Your task to perform on an android device: open app "LiveIn - Share Your Moment" (install if not already installed) Image 0: 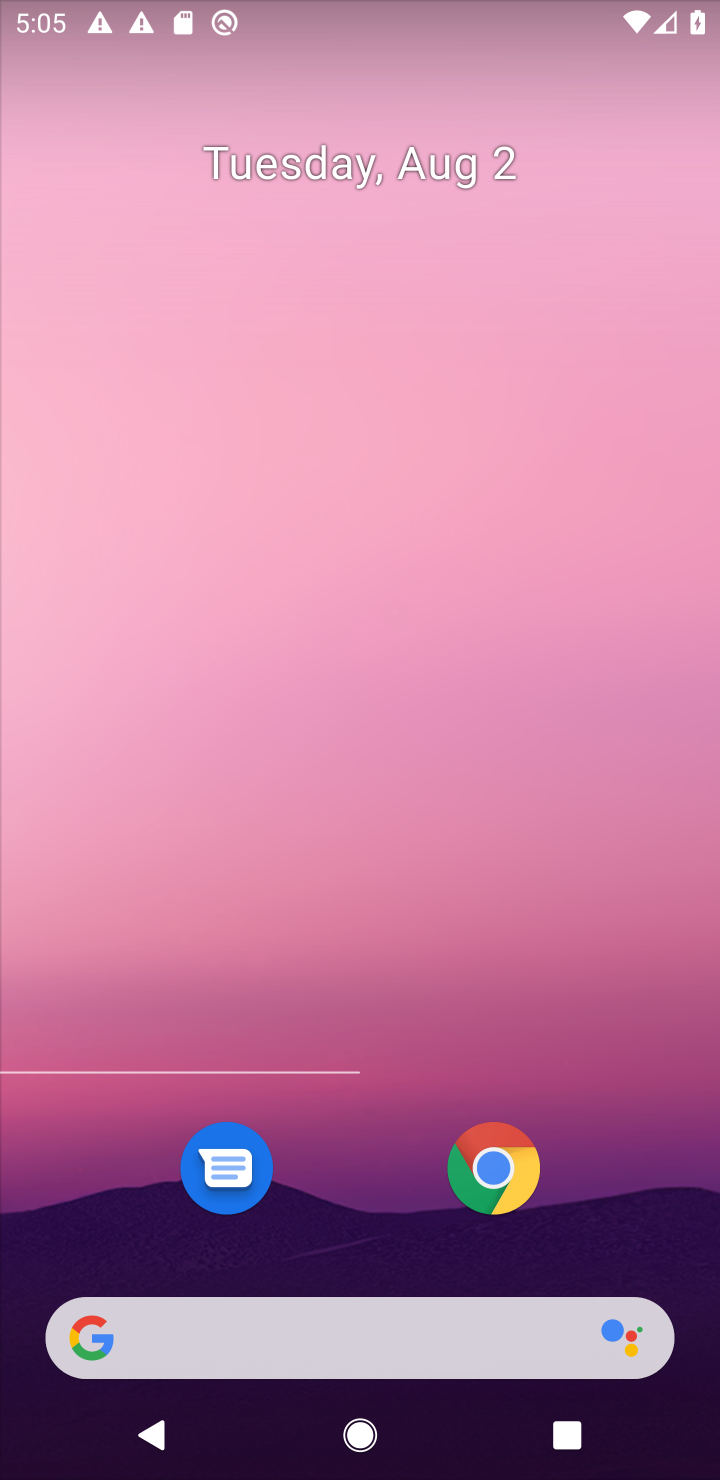
Step 0: click (326, 118)
Your task to perform on an android device: open app "LiveIn - Share Your Moment" (install if not already installed) Image 1: 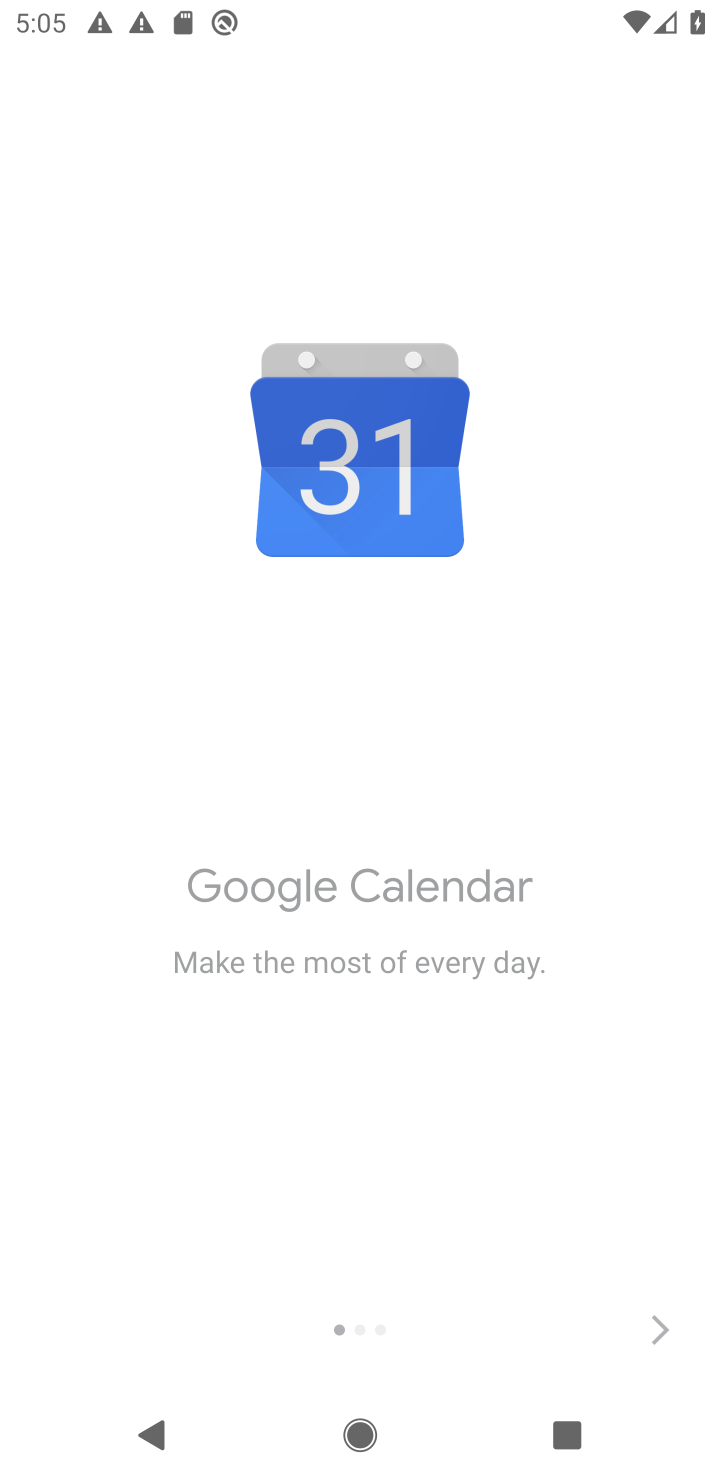
Step 1: drag from (360, 1184) to (403, 117)
Your task to perform on an android device: open app "LiveIn - Share Your Moment" (install if not already installed) Image 2: 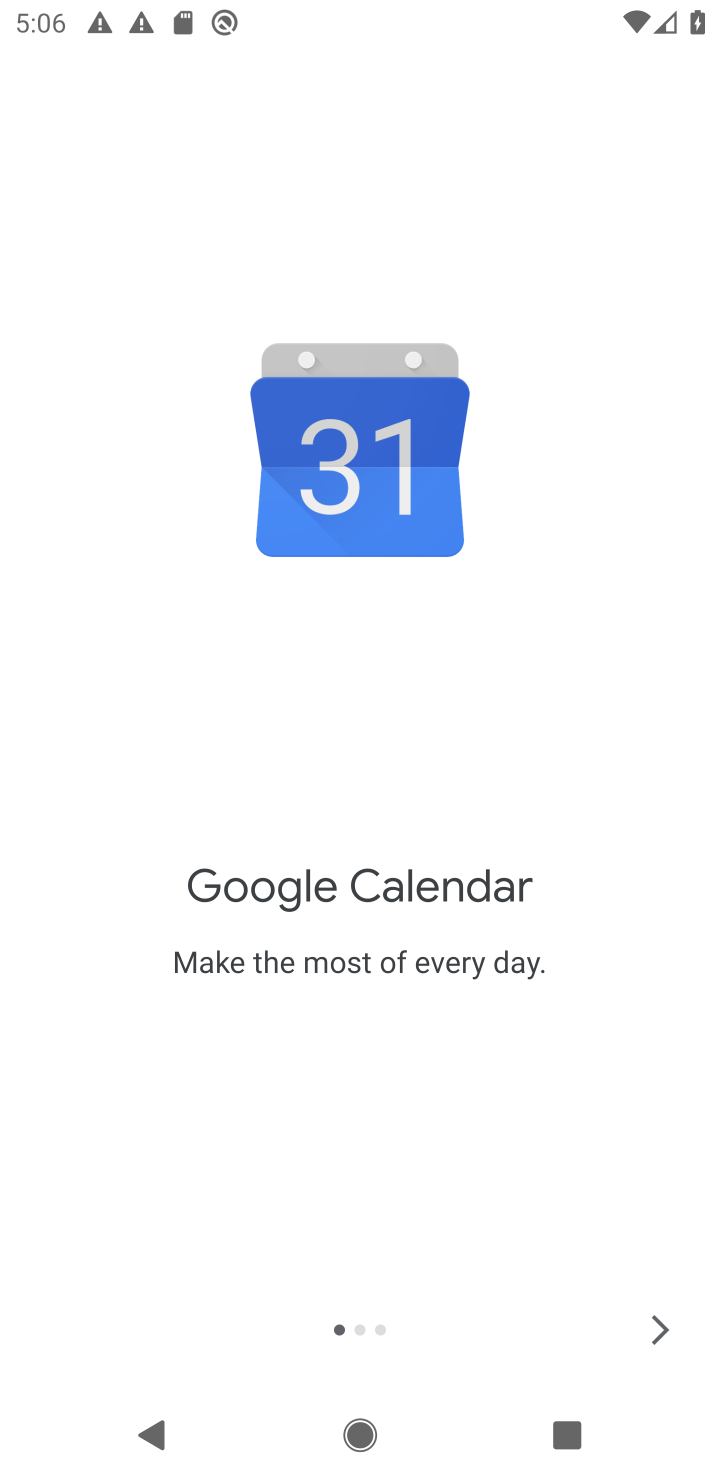
Step 2: press home button
Your task to perform on an android device: open app "LiveIn - Share Your Moment" (install if not already installed) Image 3: 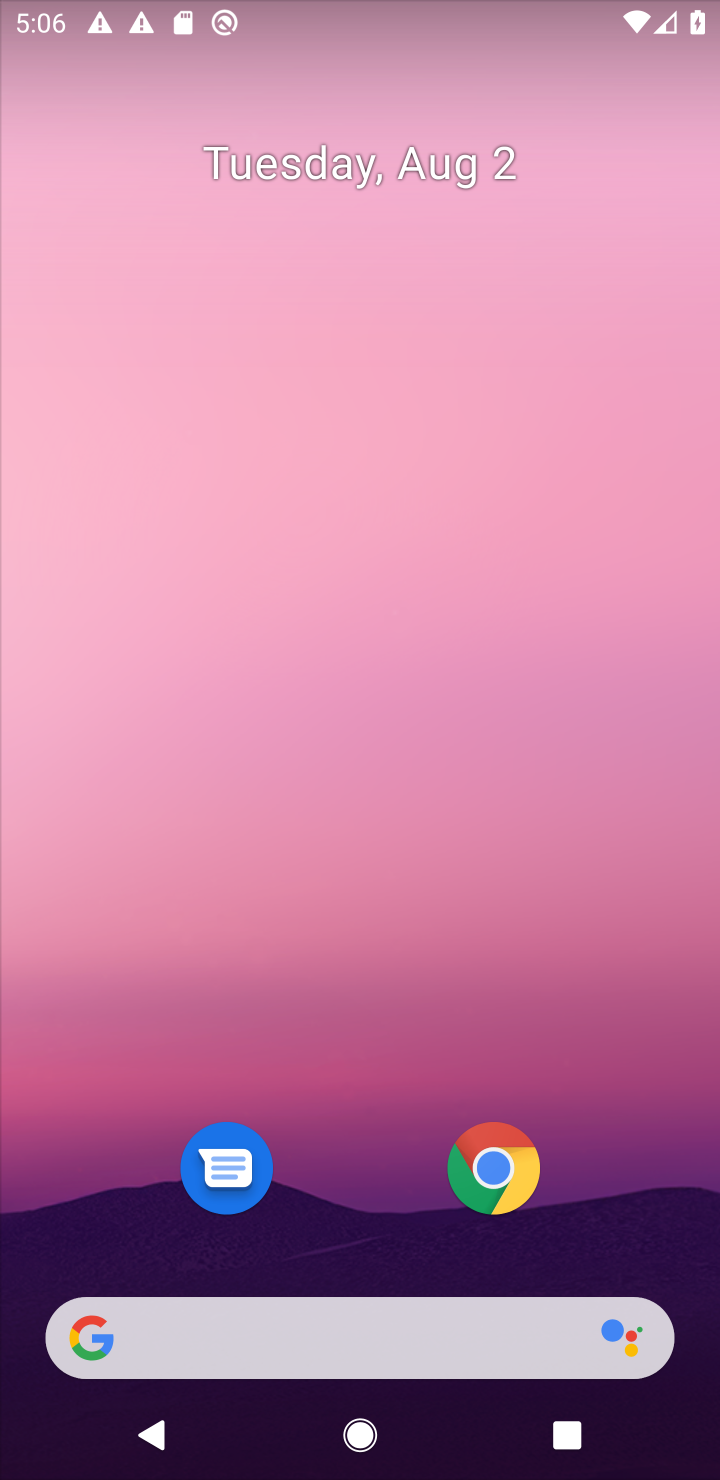
Step 3: drag from (316, 713) to (368, 43)
Your task to perform on an android device: open app "LiveIn - Share Your Moment" (install if not already installed) Image 4: 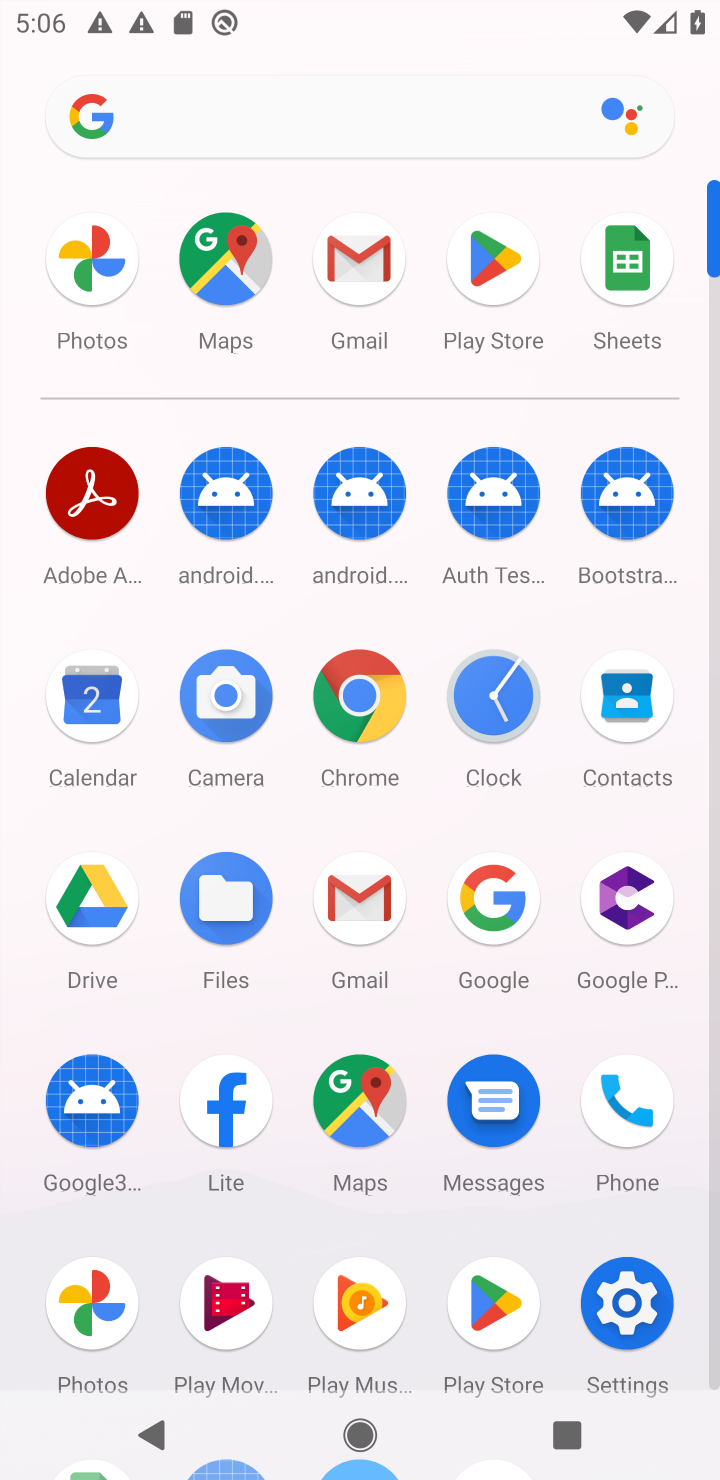
Step 4: click (488, 267)
Your task to perform on an android device: open app "LiveIn - Share Your Moment" (install if not already installed) Image 5: 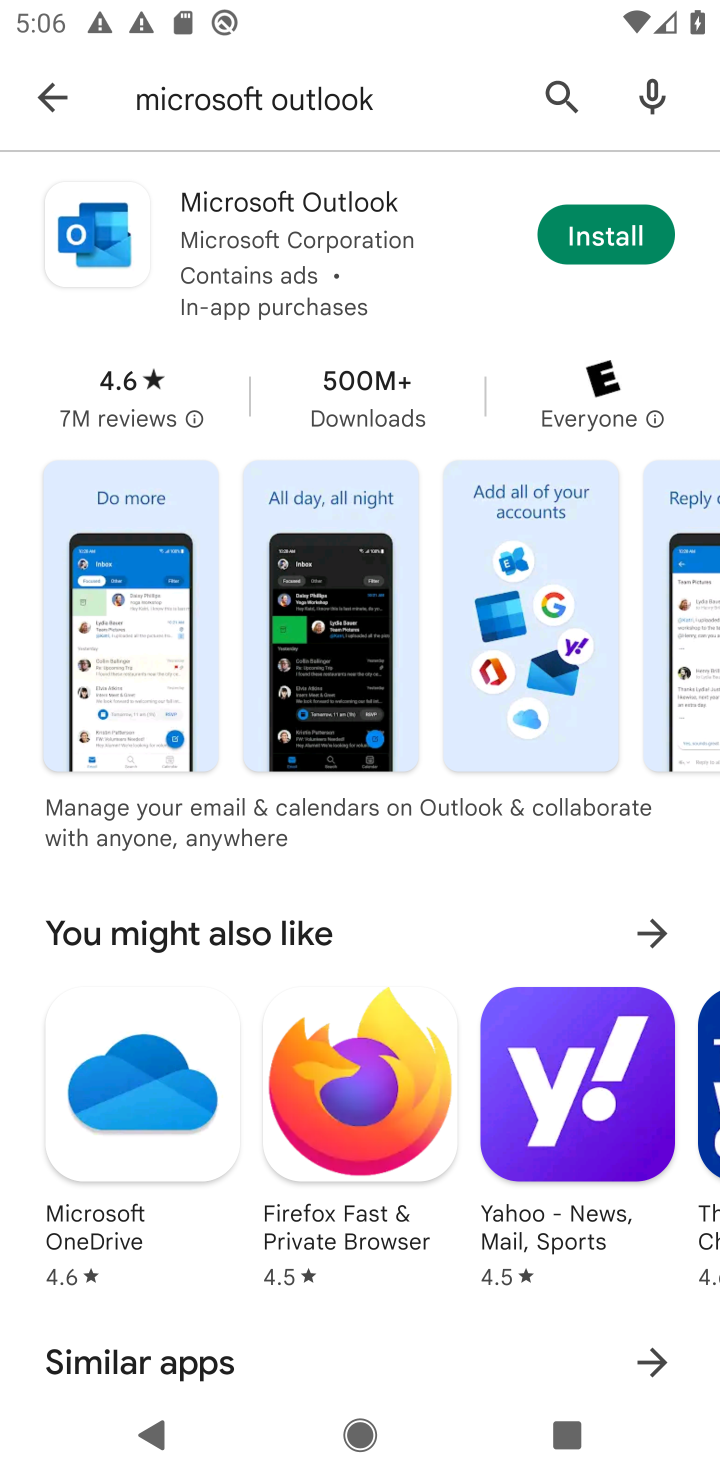
Step 5: click (276, 96)
Your task to perform on an android device: open app "LiveIn - Share Your Moment" (install if not already installed) Image 6: 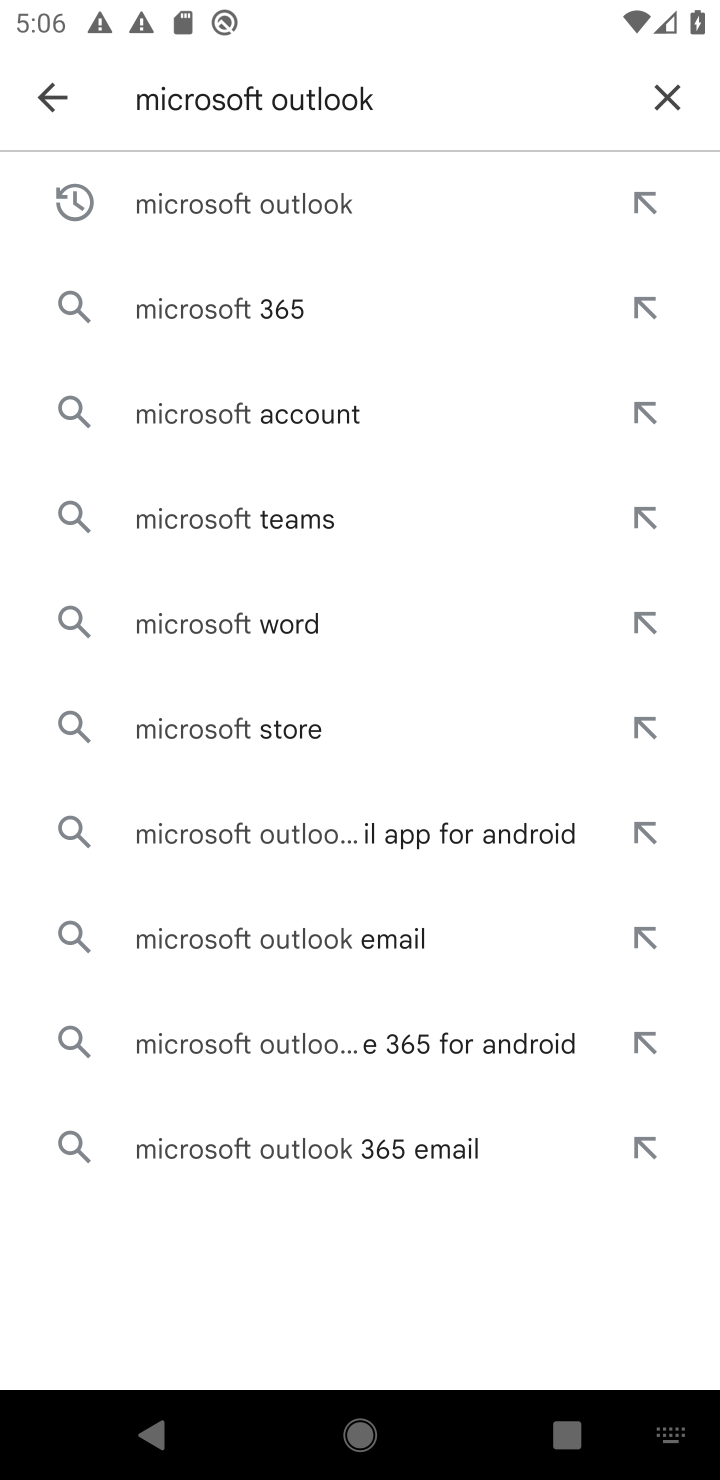
Step 6: click (671, 95)
Your task to perform on an android device: open app "LiveIn - Share Your Moment" (install if not already installed) Image 7: 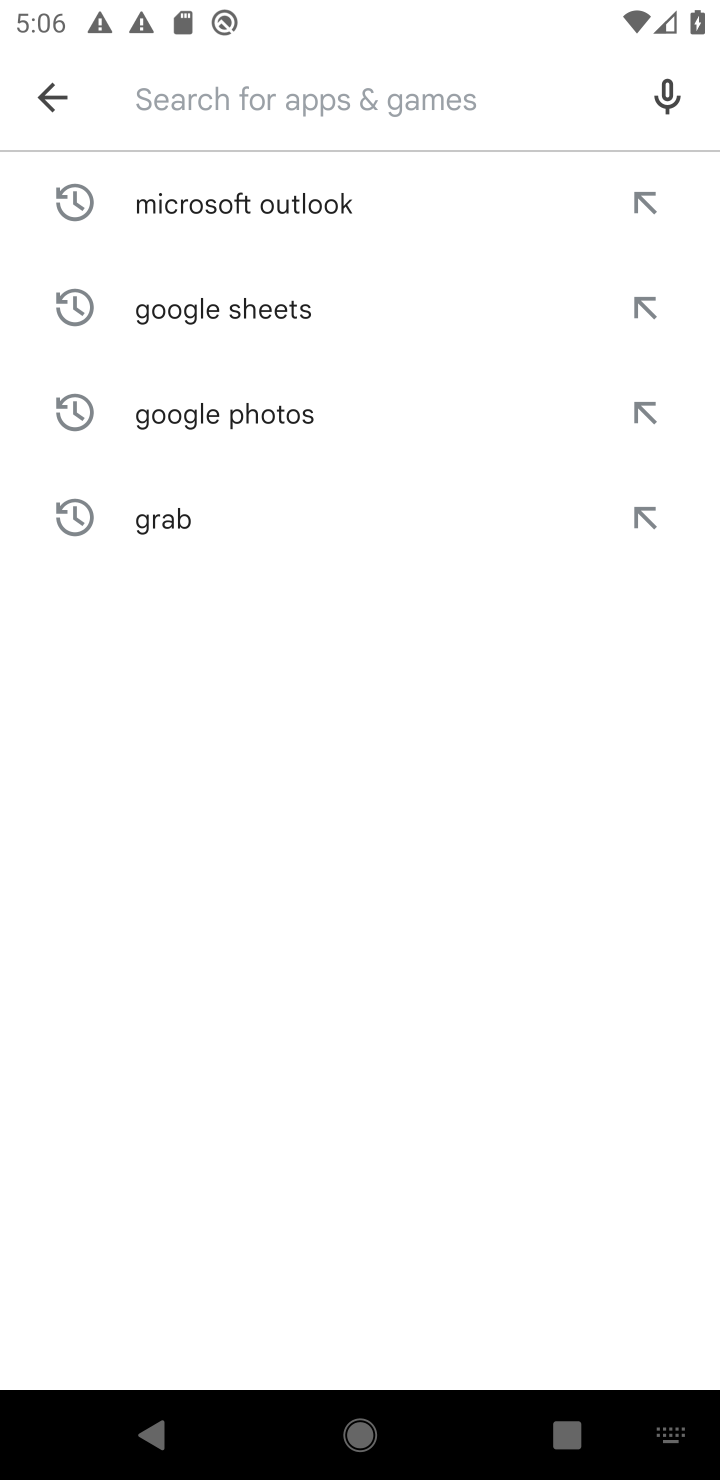
Step 7: click (346, 104)
Your task to perform on an android device: open app "LiveIn - Share Your Moment" (install if not already installed) Image 8: 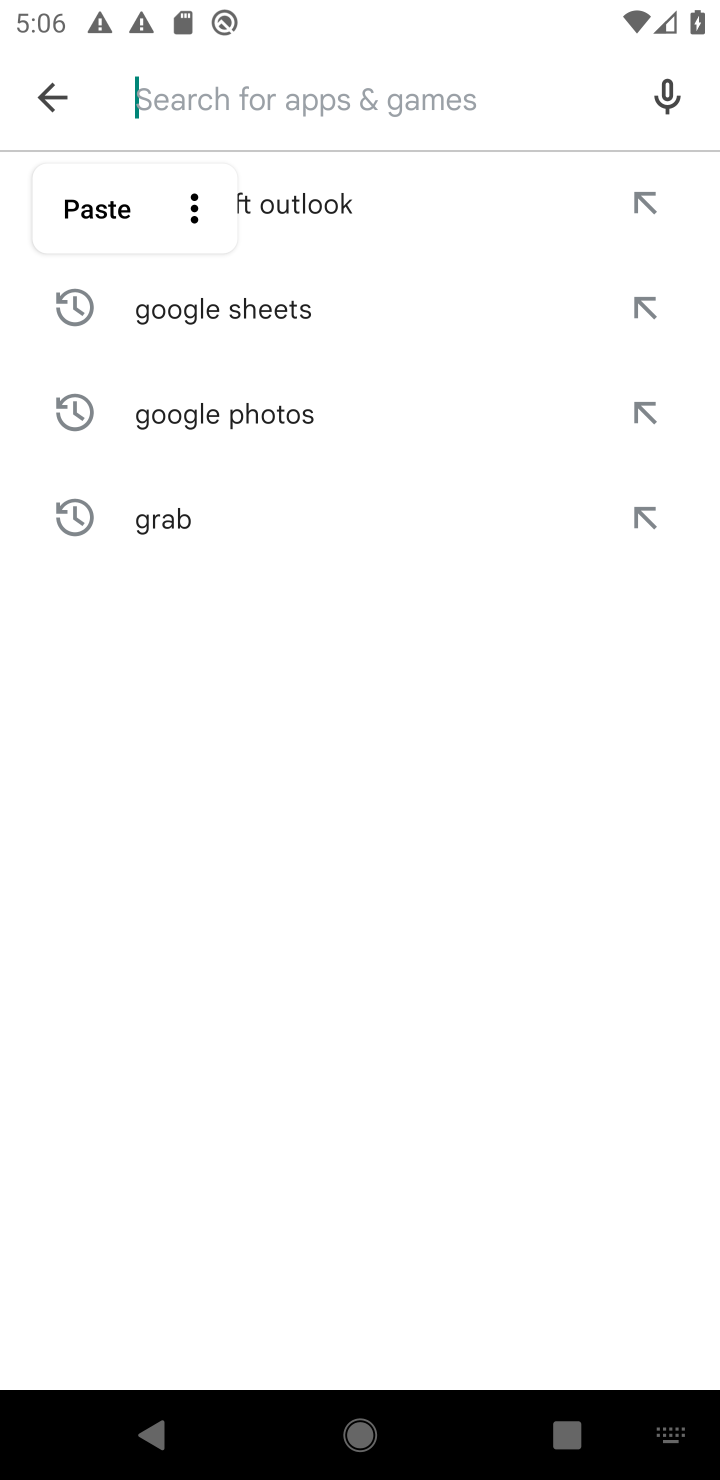
Step 8: type "LiveIN"
Your task to perform on an android device: open app "LiveIn - Share Your Moment" (install if not already installed) Image 9: 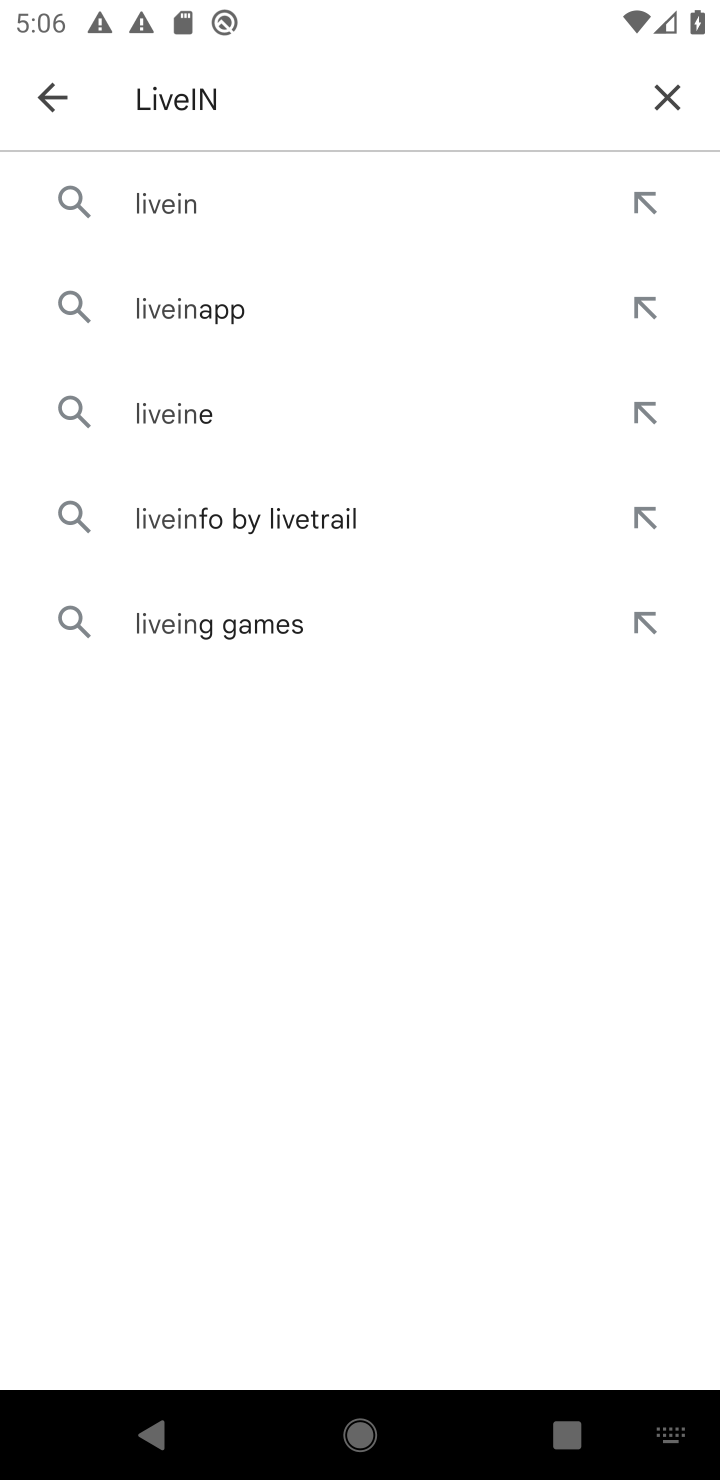
Step 9: click (163, 197)
Your task to perform on an android device: open app "LiveIn - Share Your Moment" (install if not already installed) Image 10: 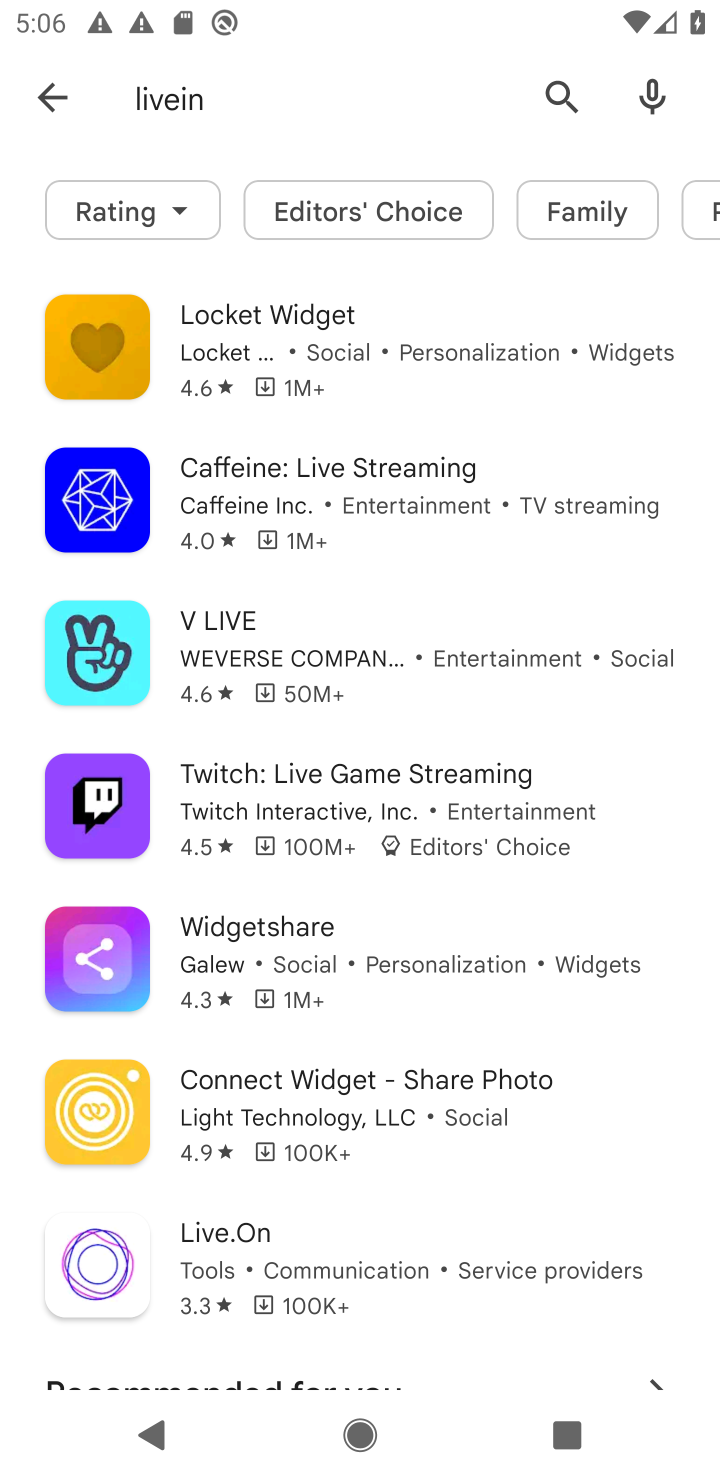
Step 10: task complete